Your task to perform on an android device: Open CNN.com Image 0: 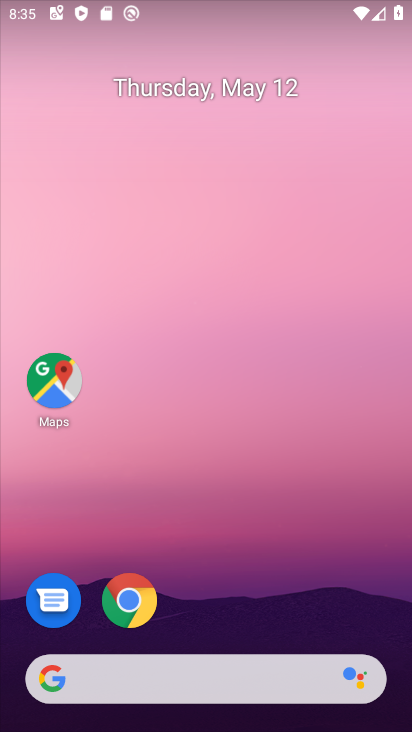
Step 0: click (144, 614)
Your task to perform on an android device: Open CNN.com Image 1: 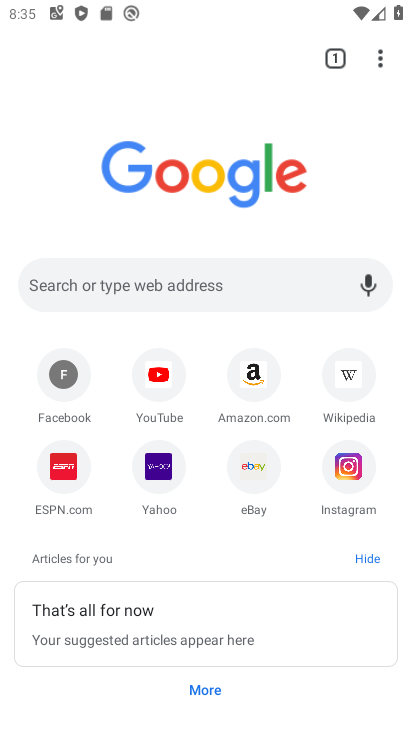
Step 1: click (175, 283)
Your task to perform on an android device: Open CNN.com Image 2: 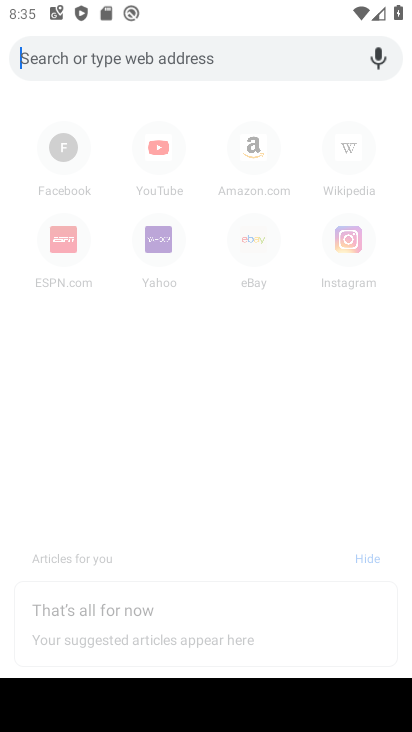
Step 2: type "www.cnn.com"
Your task to perform on an android device: Open CNN.com Image 3: 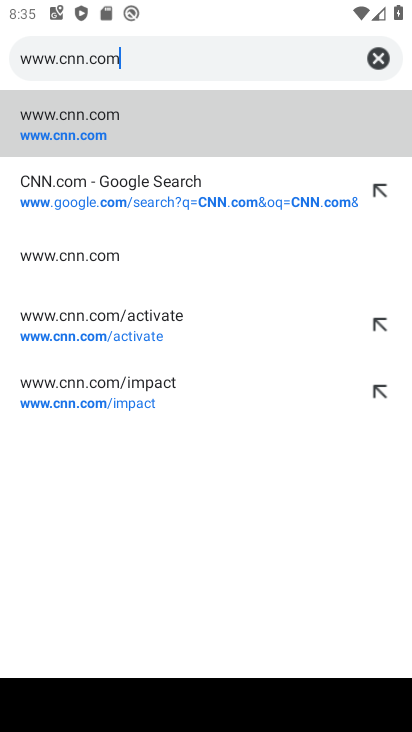
Step 3: click (88, 129)
Your task to perform on an android device: Open CNN.com Image 4: 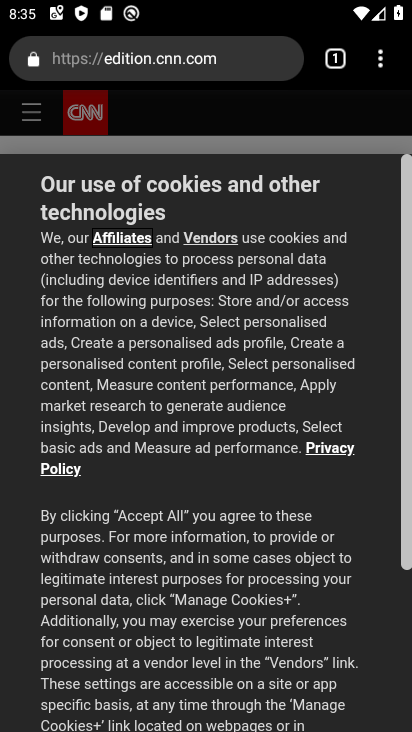
Step 4: task complete